Your task to perform on an android device: Search for "acer nitro" on walmart, select the first entry, and add it to the cart. Image 0: 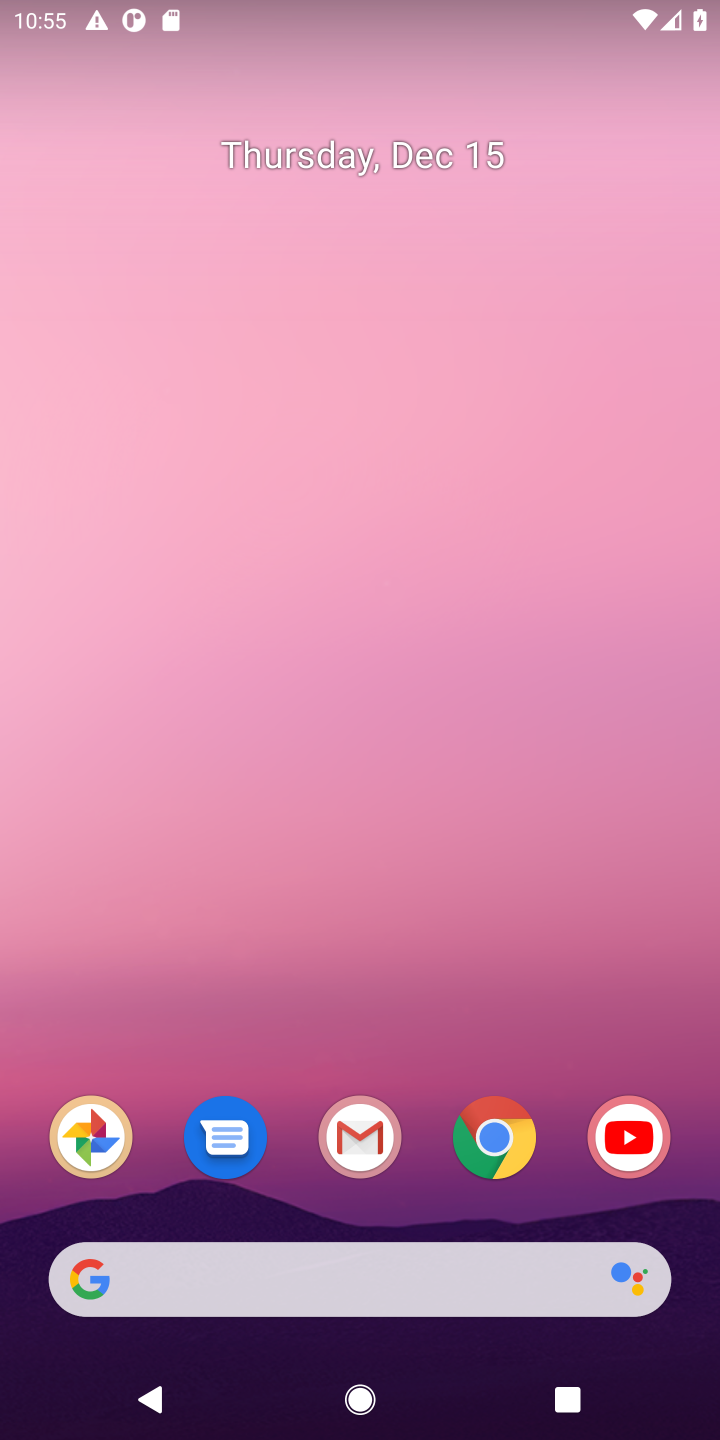
Step 0: drag from (379, 1052) to (375, 508)
Your task to perform on an android device: Search for "acer nitro" on walmart, select the first entry, and add it to the cart. Image 1: 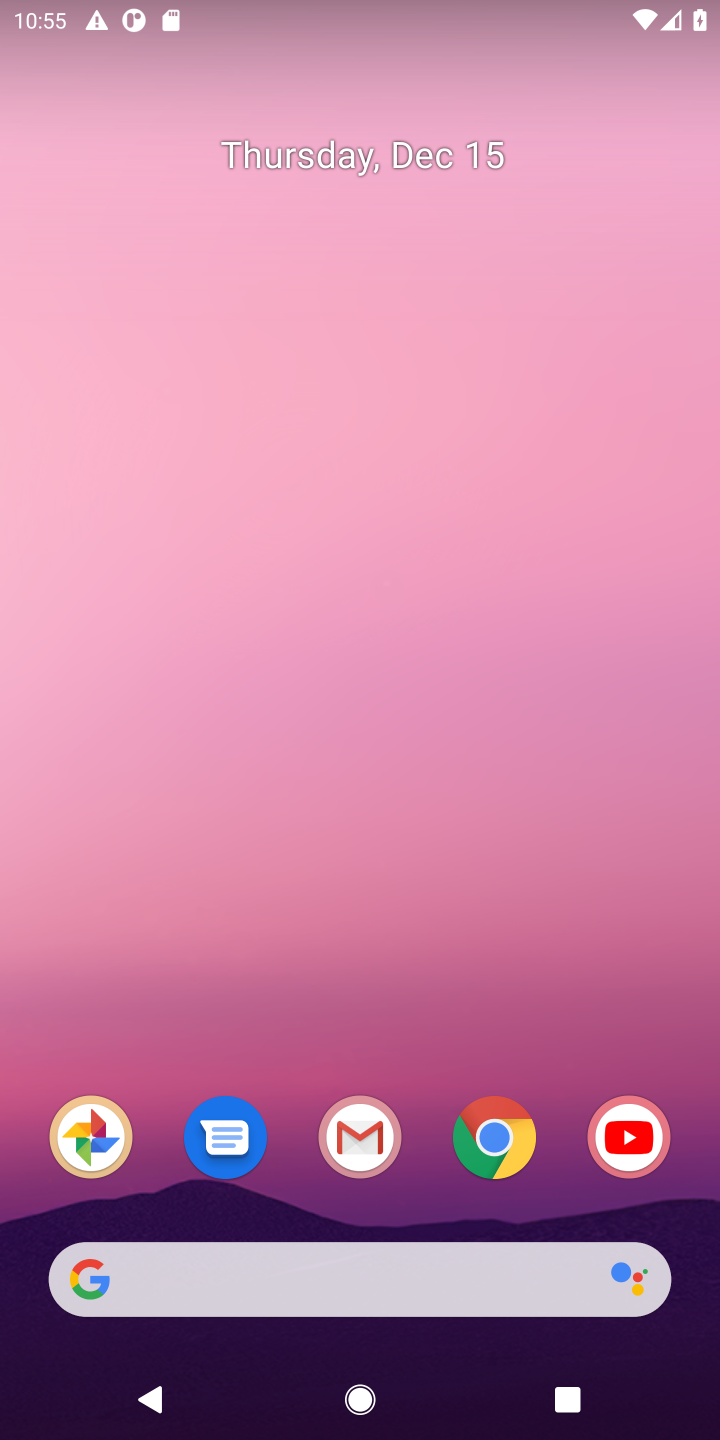
Step 1: drag from (318, 1011) to (281, 377)
Your task to perform on an android device: Search for "acer nitro" on walmart, select the first entry, and add it to the cart. Image 2: 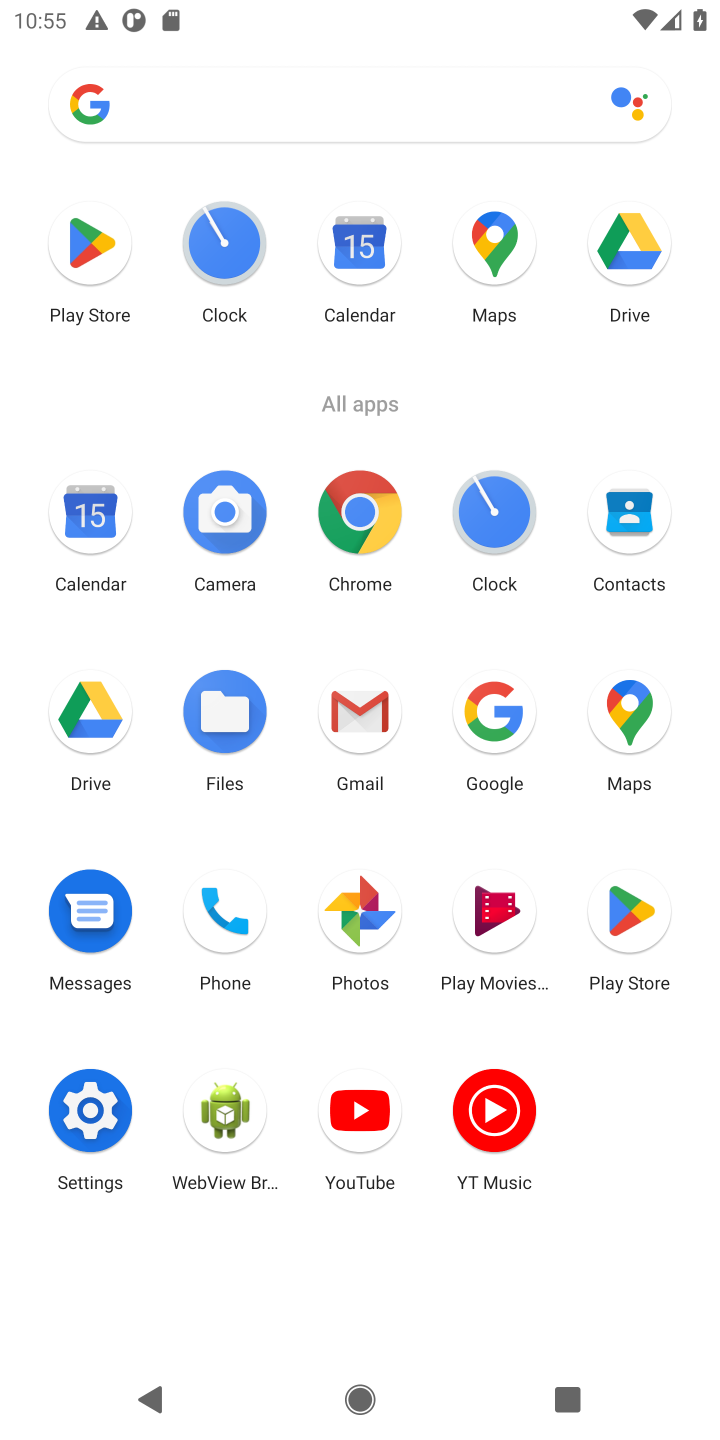
Step 2: click (505, 696)
Your task to perform on an android device: Search for "acer nitro" on walmart, select the first entry, and add it to the cart. Image 3: 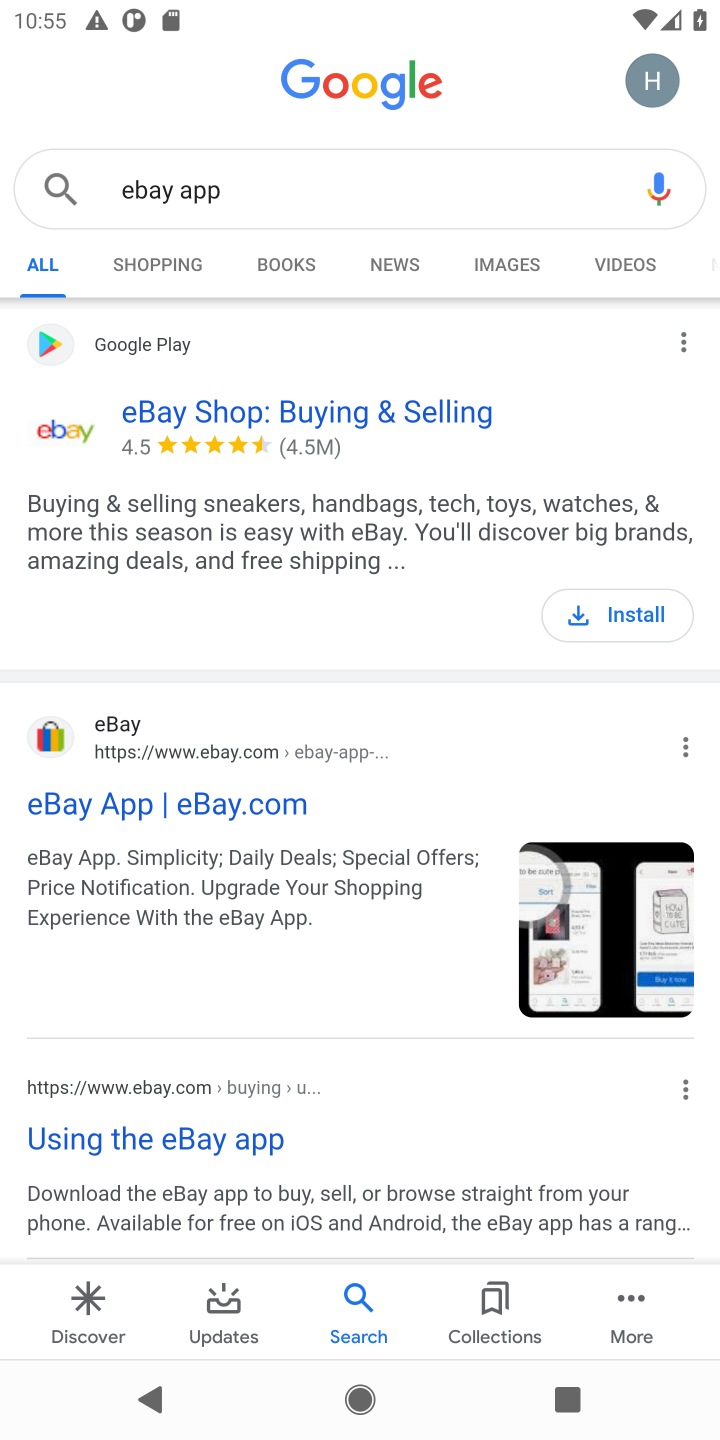
Step 3: click (146, 184)
Your task to perform on an android device: Search for "acer nitro" on walmart, select the first entry, and add it to the cart. Image 4: 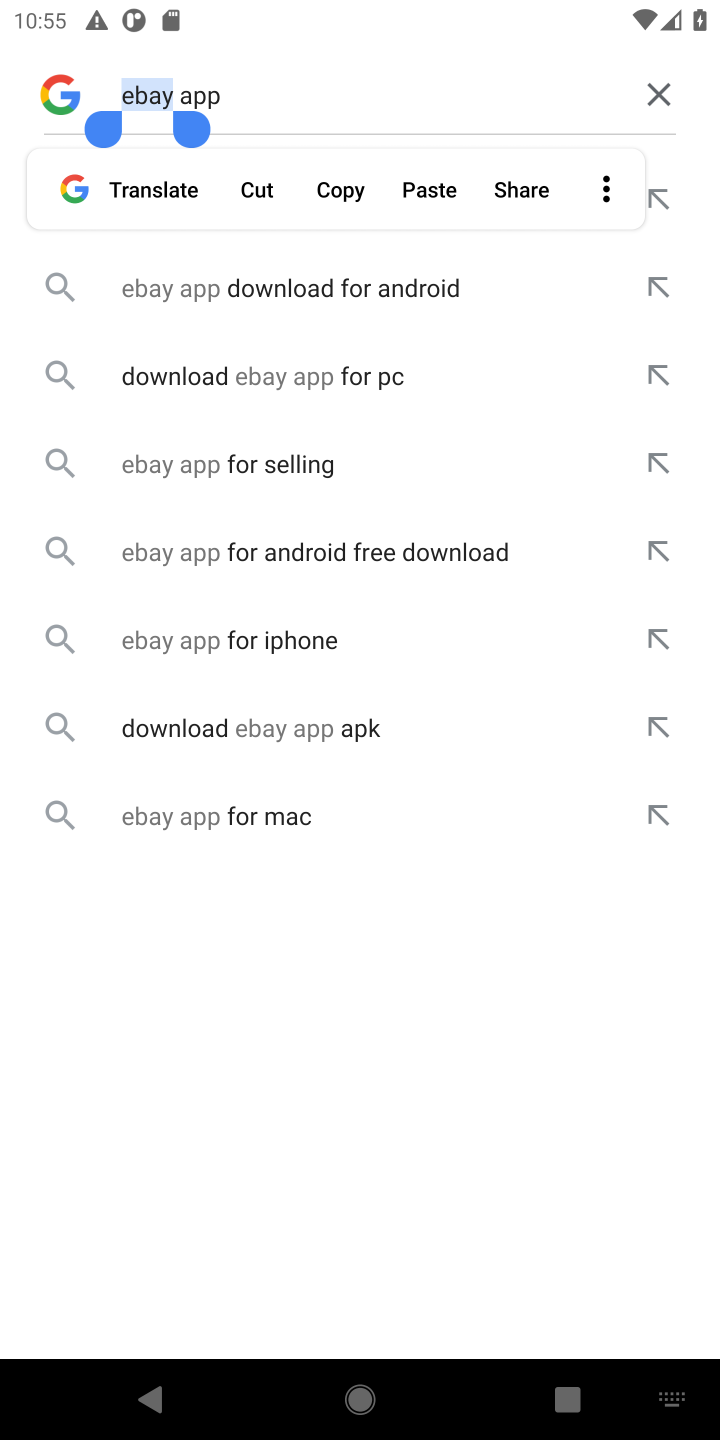
Step 4: click (657, 97)
Your task to perform on an android device: Search for "acer nitro" on walmart, select the first entry, and add it to the cart. Image 5: 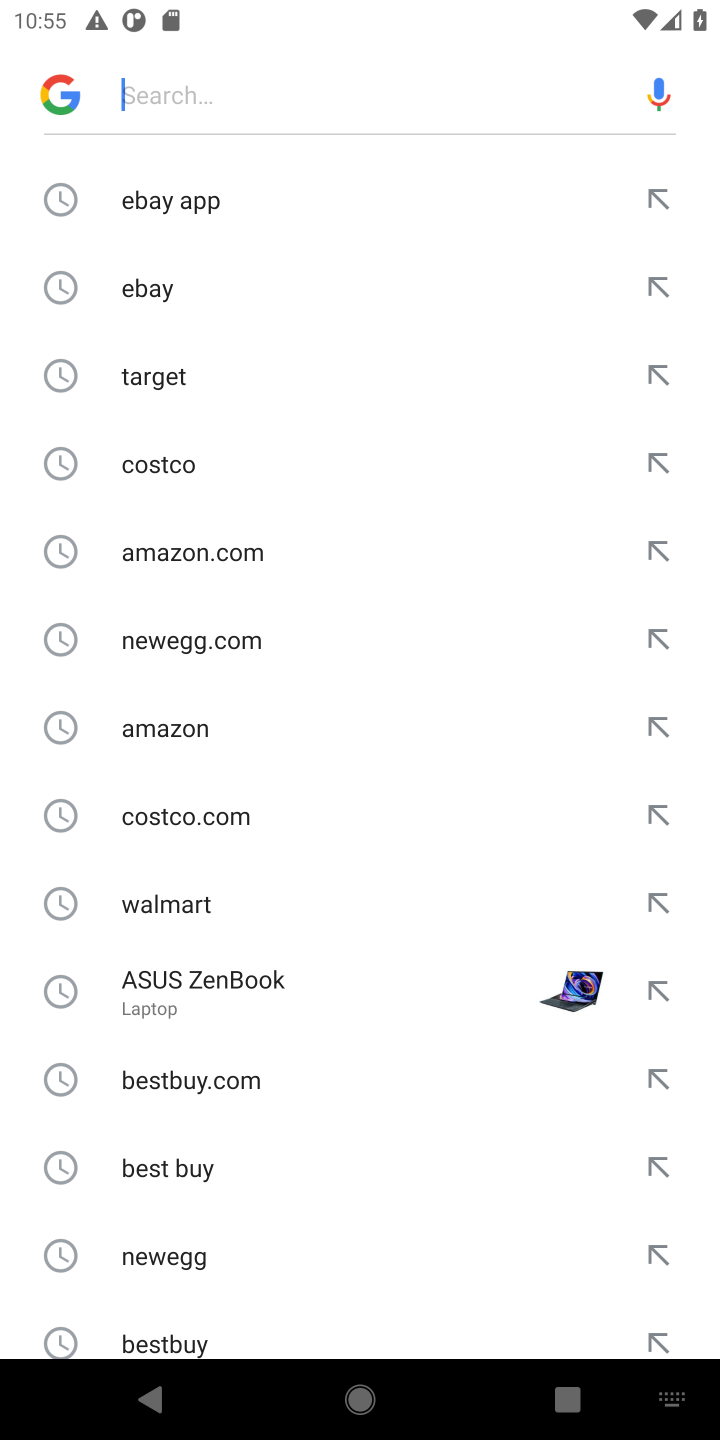
Step 5: click (179, 899)
Your task to perform on an android device: Search for "acer nitro" on walmart, select the first entry, and add it to the cart. Image 6: 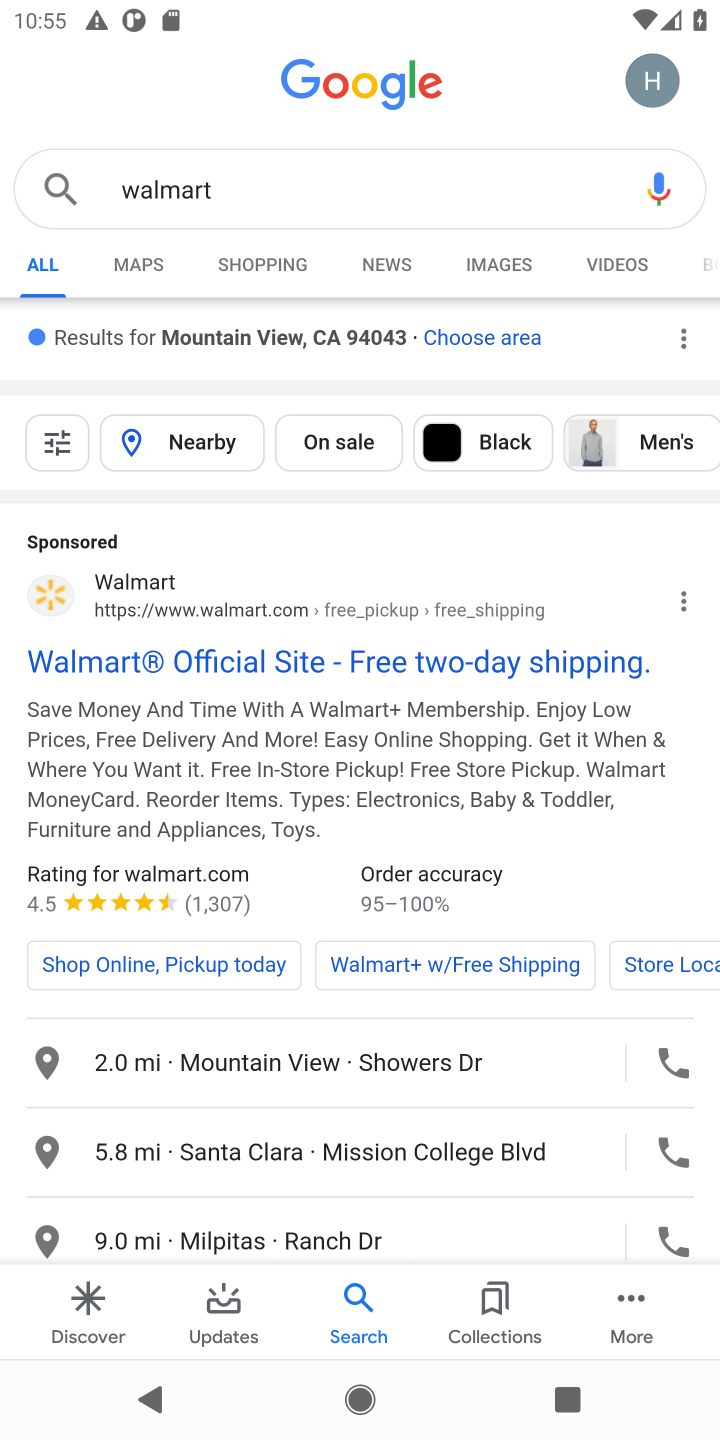
Step 6: click (131, 191)
Your task to perform on an android device: Search for "acer nitro" on walmart, select the first entry, and add it to the cart. Image 7: 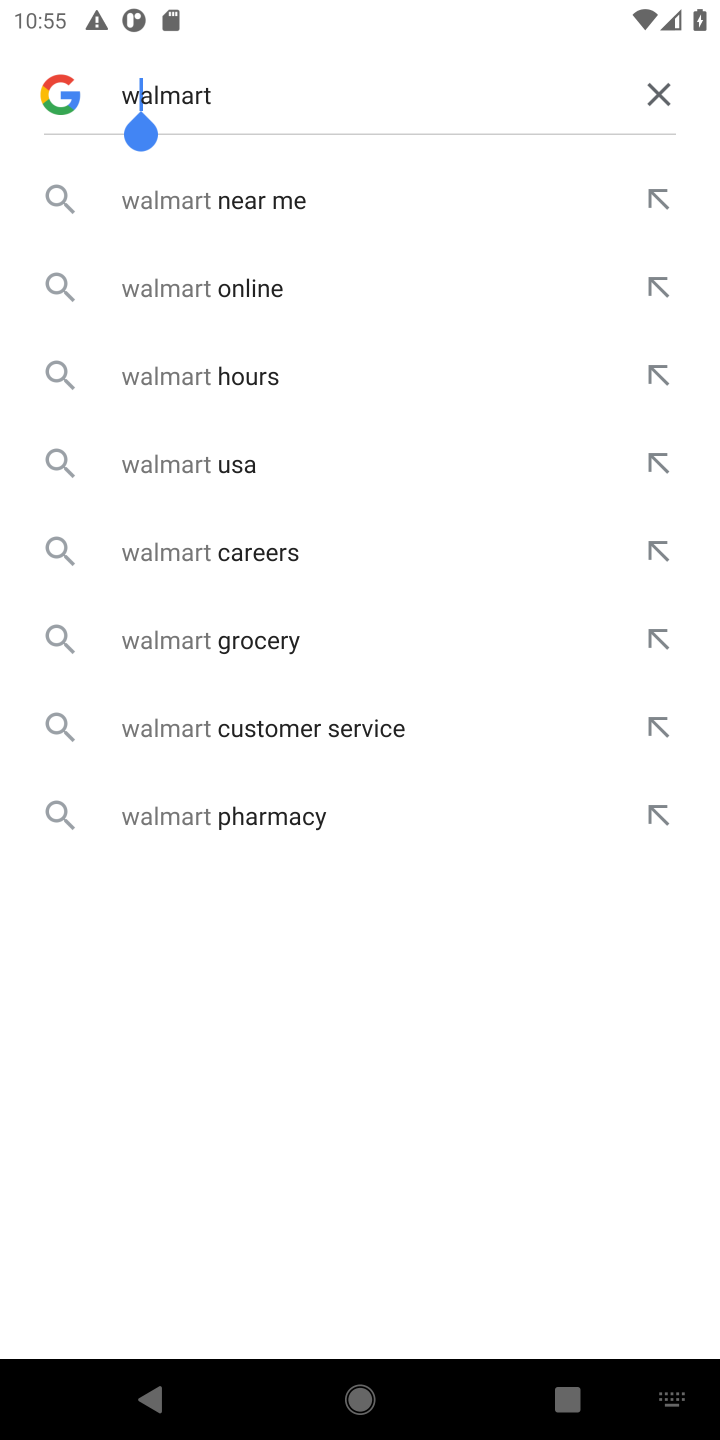
Step 7: click (663, 97)
Your task to perform on an android device: Search for "acer nitro" on walmart, select the first entry, and add it to the cart. Image 8: 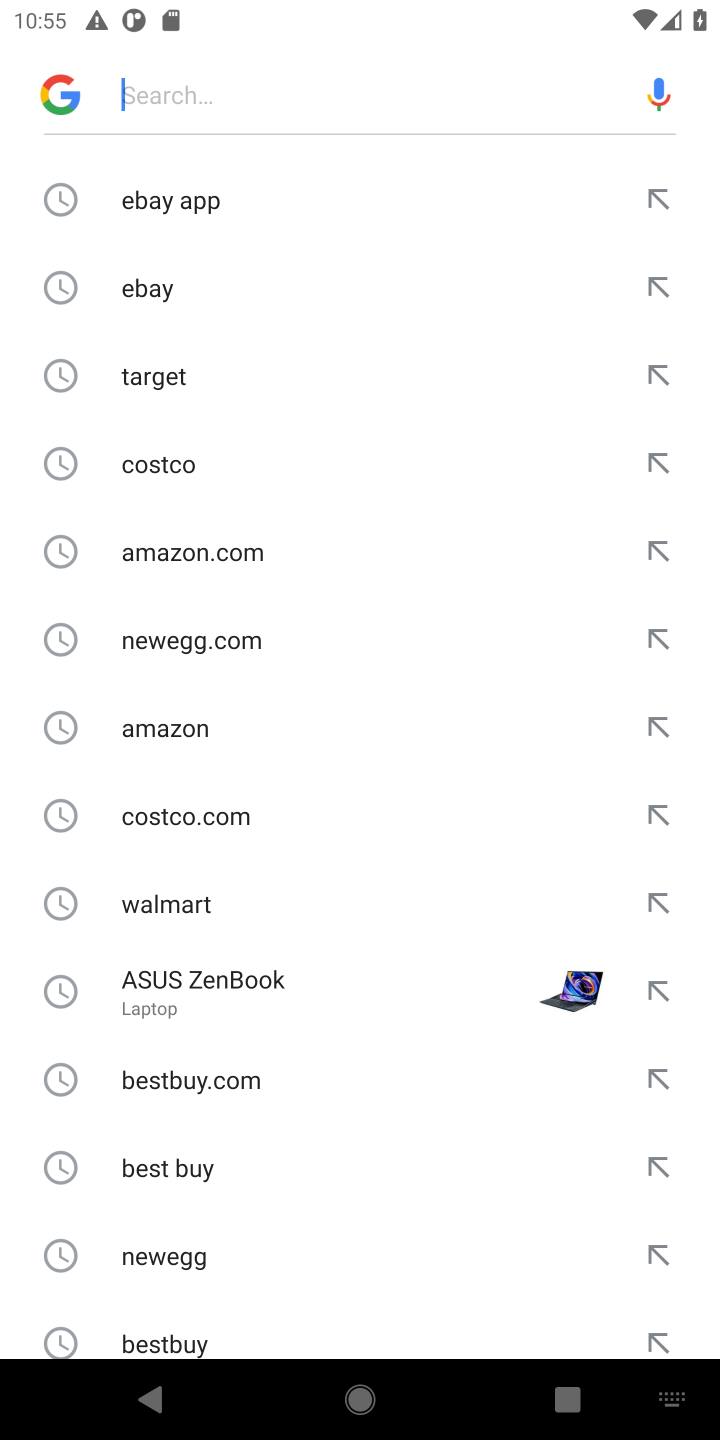
Step 8: click (193, 892)
Your task to perform on an android device: Search for "acer nitro" on walmart, select the first entry, and add it to the cart. Image 9: 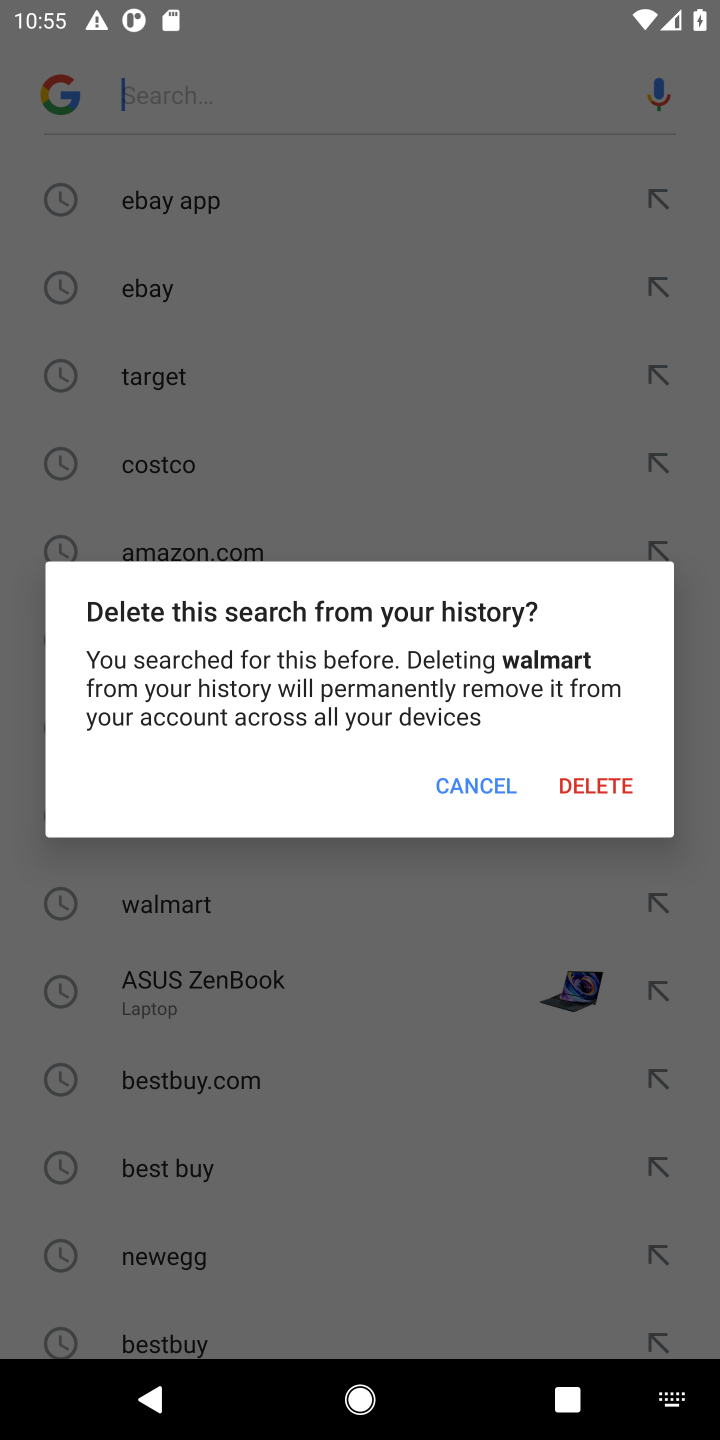
Step 9: click (459, 790)
Your task to perform on an android device: Search for "acer nitro" on walmart, select the first entry, and add it to the cart. Image 10: 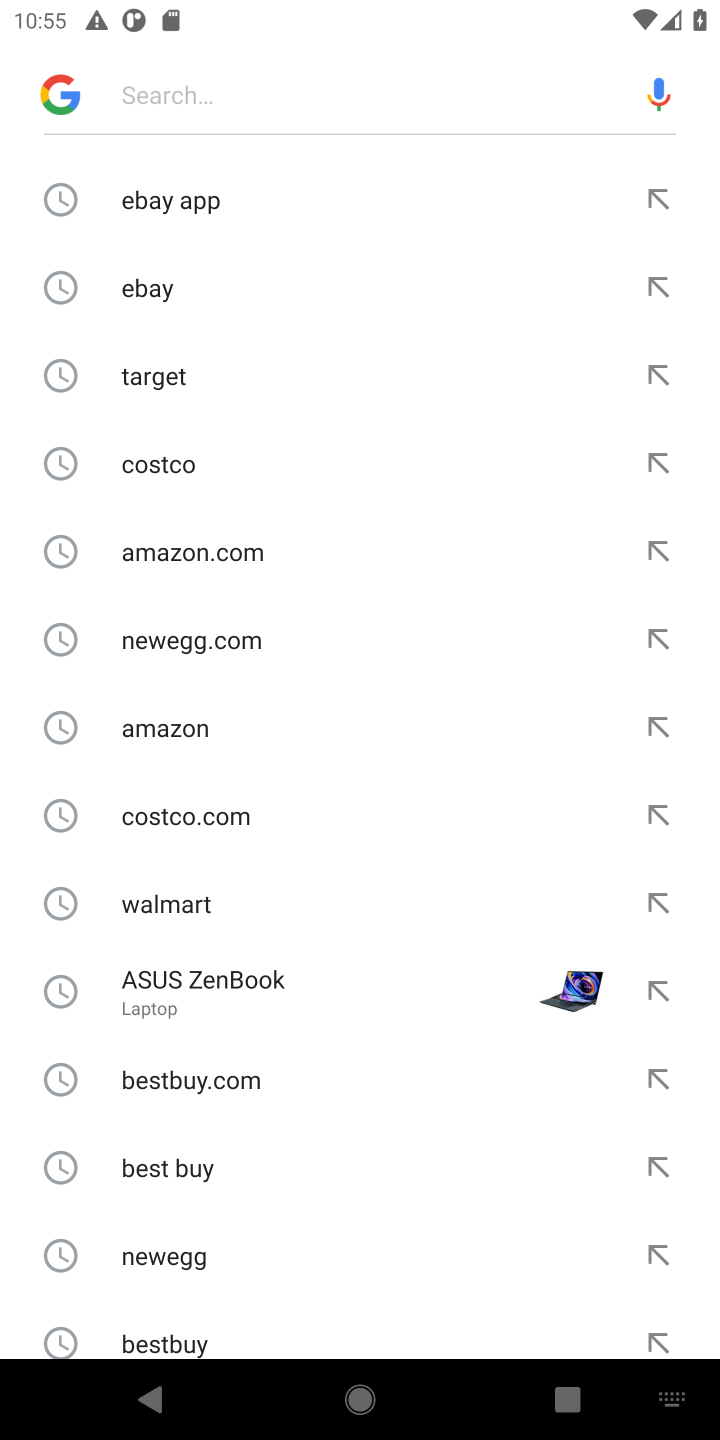
Step 10: click (154, 901)
Your task to perform on an android device: Search for "acer nitro" on walmart, select the first entry, and add it to the cart. Image 11: 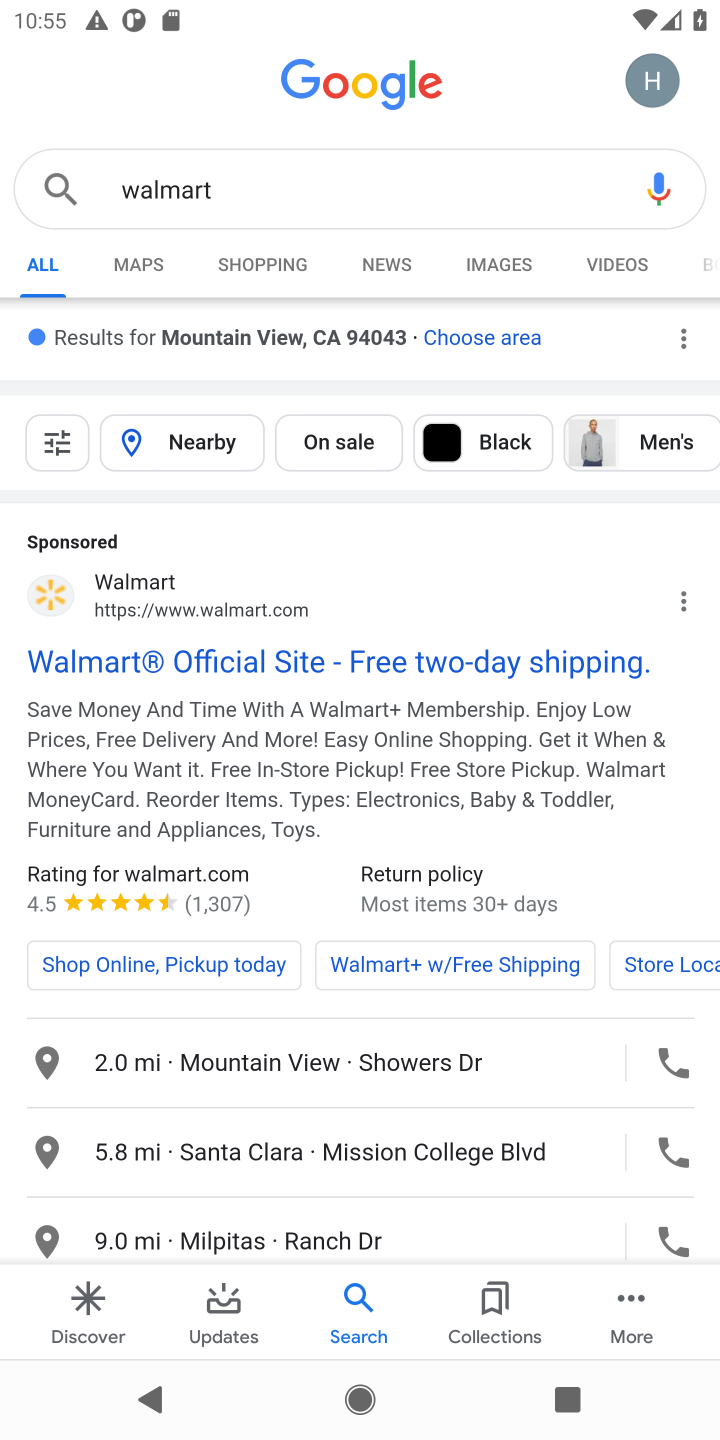
Step 11: click (178, 659)
Your task to perform on an android device: Search for "acer nitro" on walmart, select the first entry, and add it to the cart. Image 12: 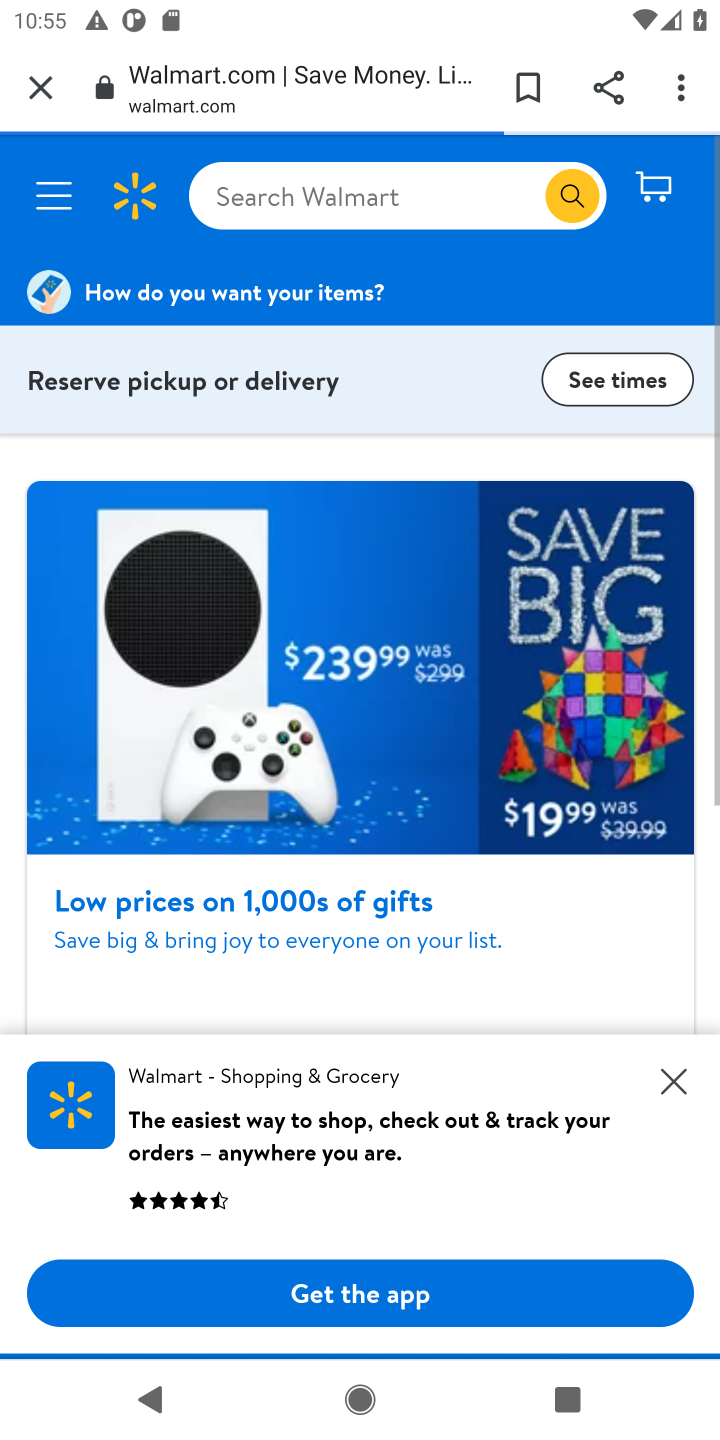
Step 12: click (259, 196)
Your task to perform on an android device: Search for "acer nitro" on walmart, select the first entry, and add it to the cart. Image 13: 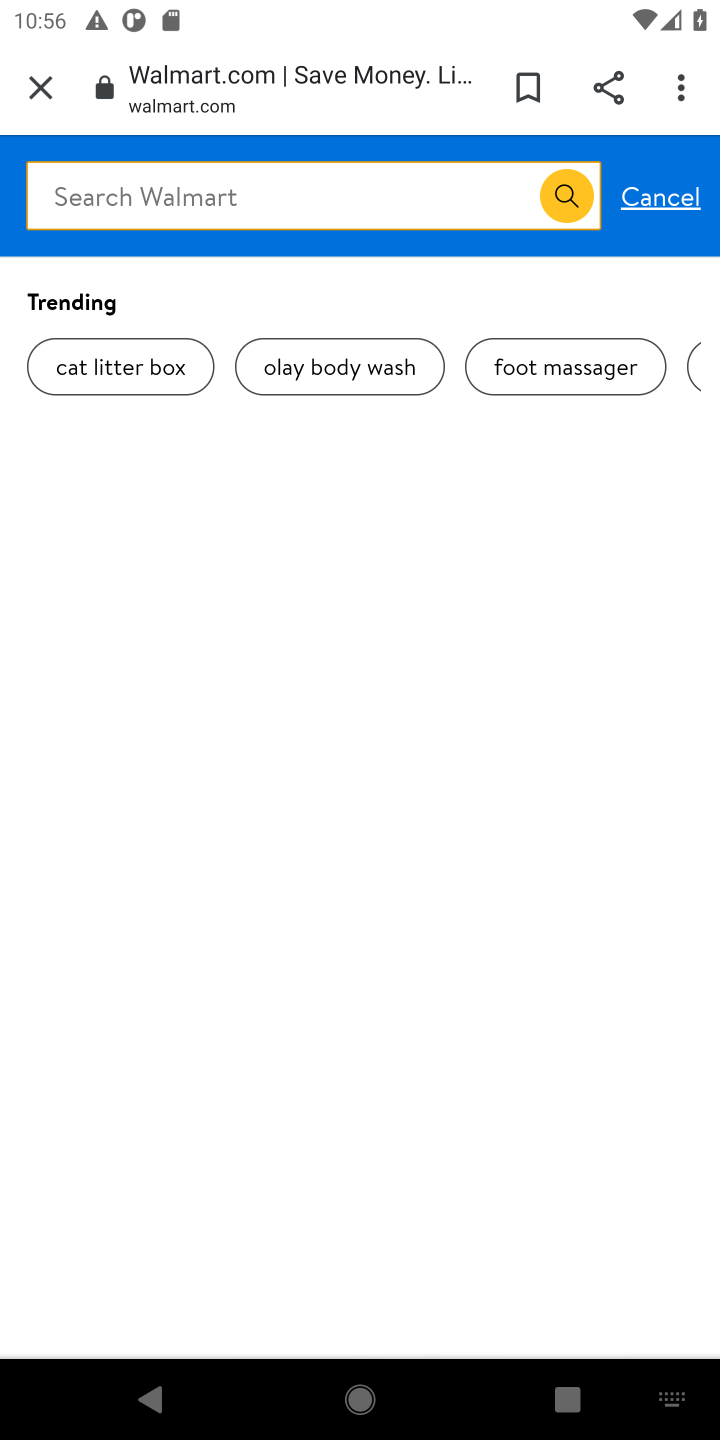
Step 13: type "acer nitro"
Your task to perform on an android device: Search for "acer nitro" on walmart, select the first entry, and add it to the cart. Image 14: 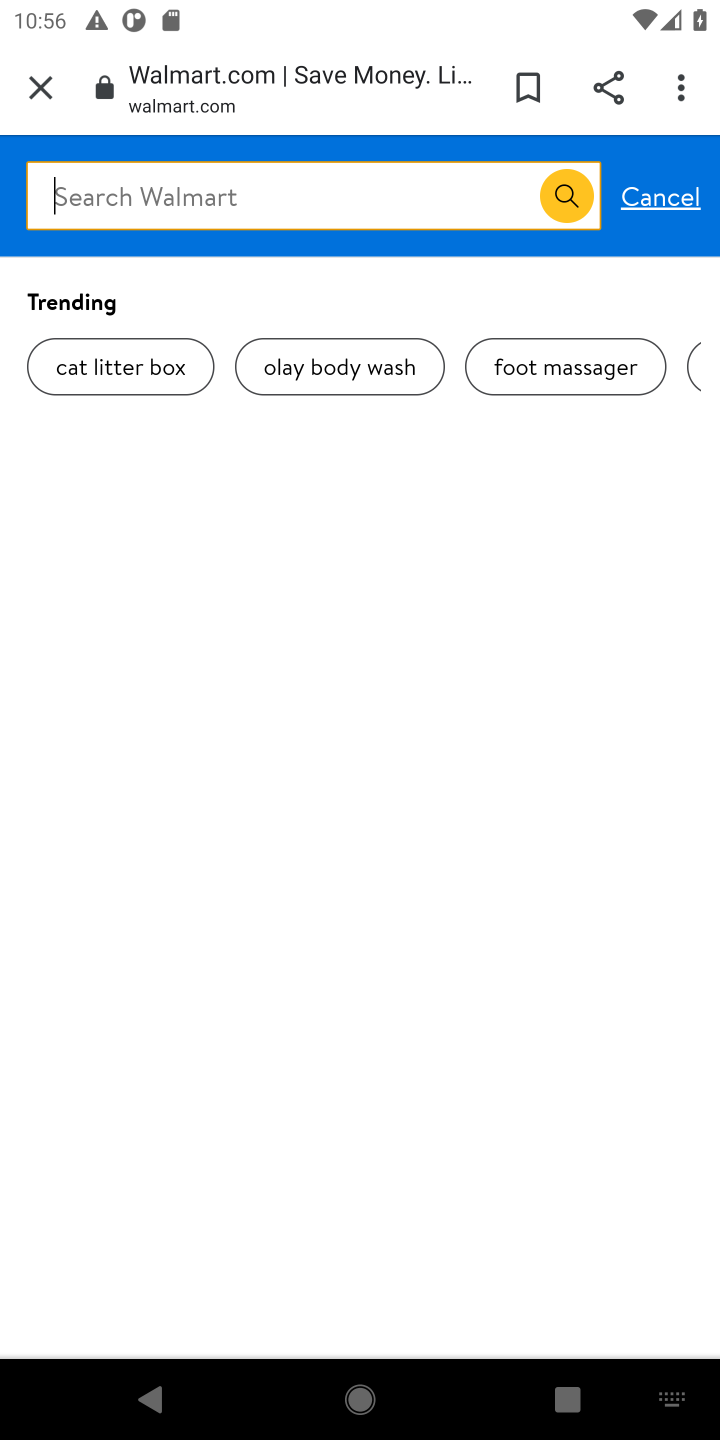
Step 14: click (564, 190)
Your task to perform on an android device: Search for "acer nitro" on walmart, select the first entry, and add it to the cart. Image 15: 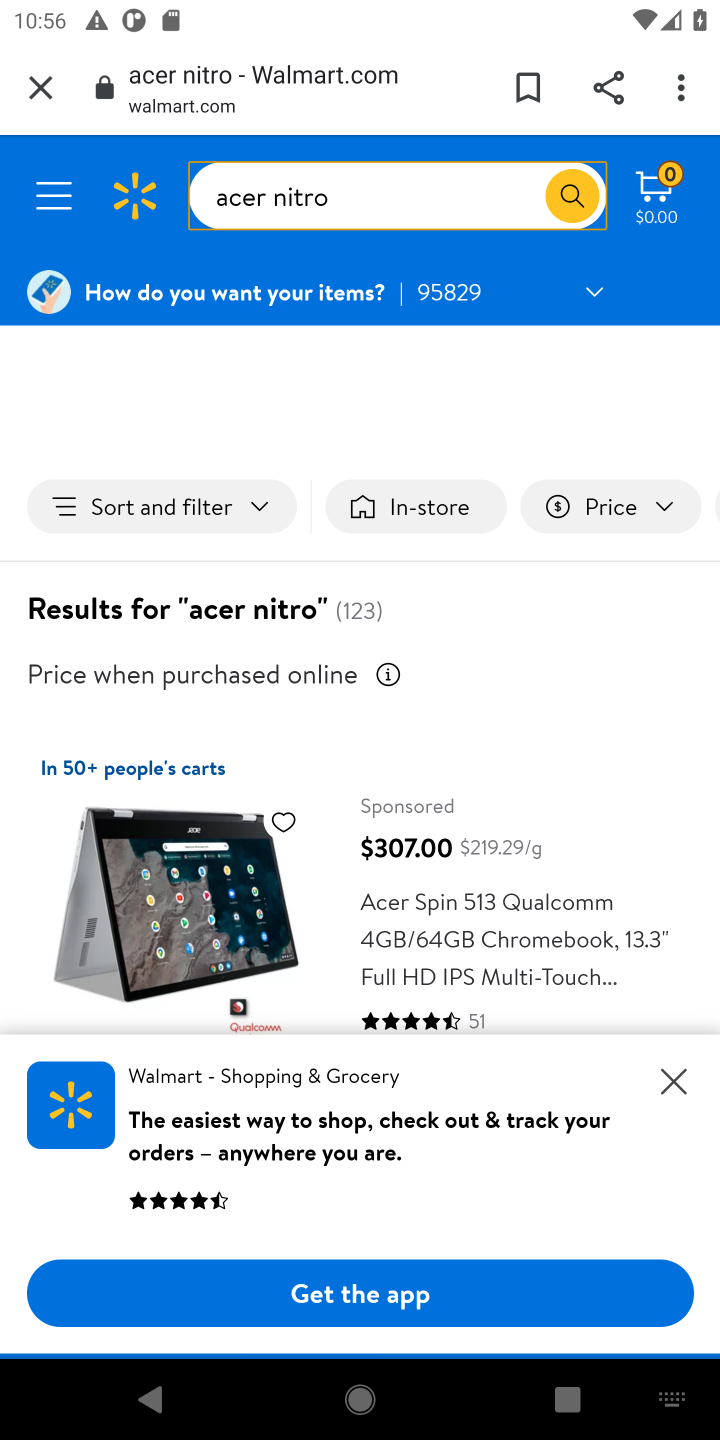
Step 15: drag from (497, 854) to (448, 389)
Your task to perform on an android device: Search for "acer nitro" on walmart, select the first entry, and add it to the cart. Image 16: 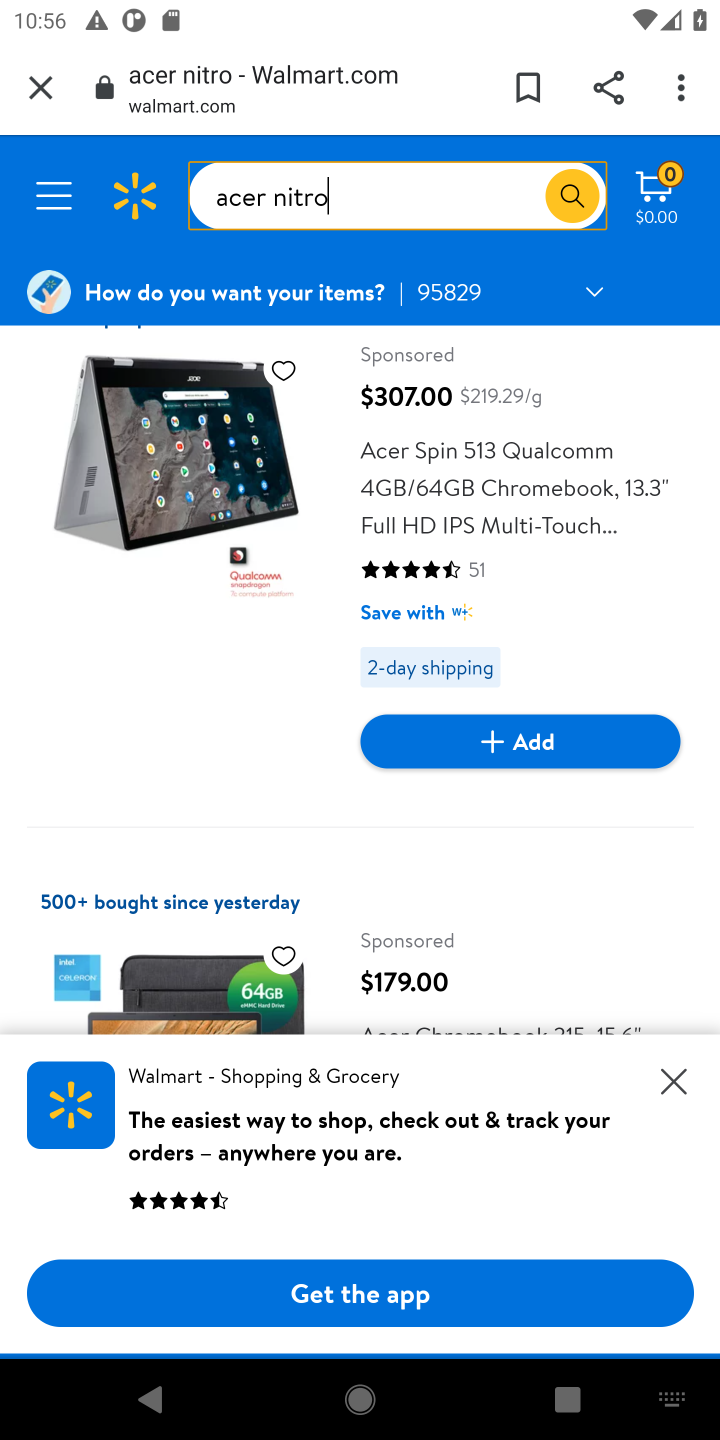
Step 16: click (676, 1085)
Your task to perform on an android device: Search for "acer nitro" on walmart, select the first entry, and add it to the cart. Image 17: 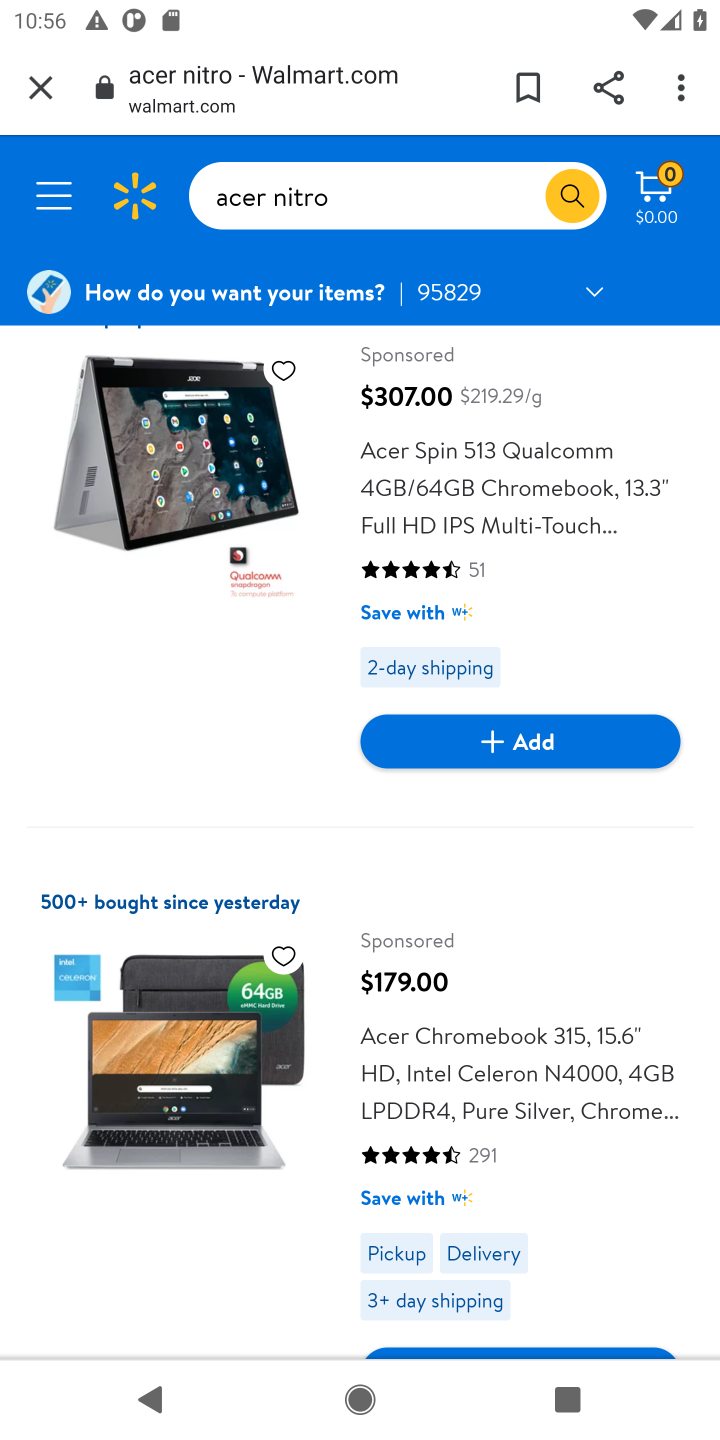
Step 17: click (523, 745)
Your task to perform on an android device: Search for "acer nitro" on walmart, select the first entry, and add it to the cart. Image 18: 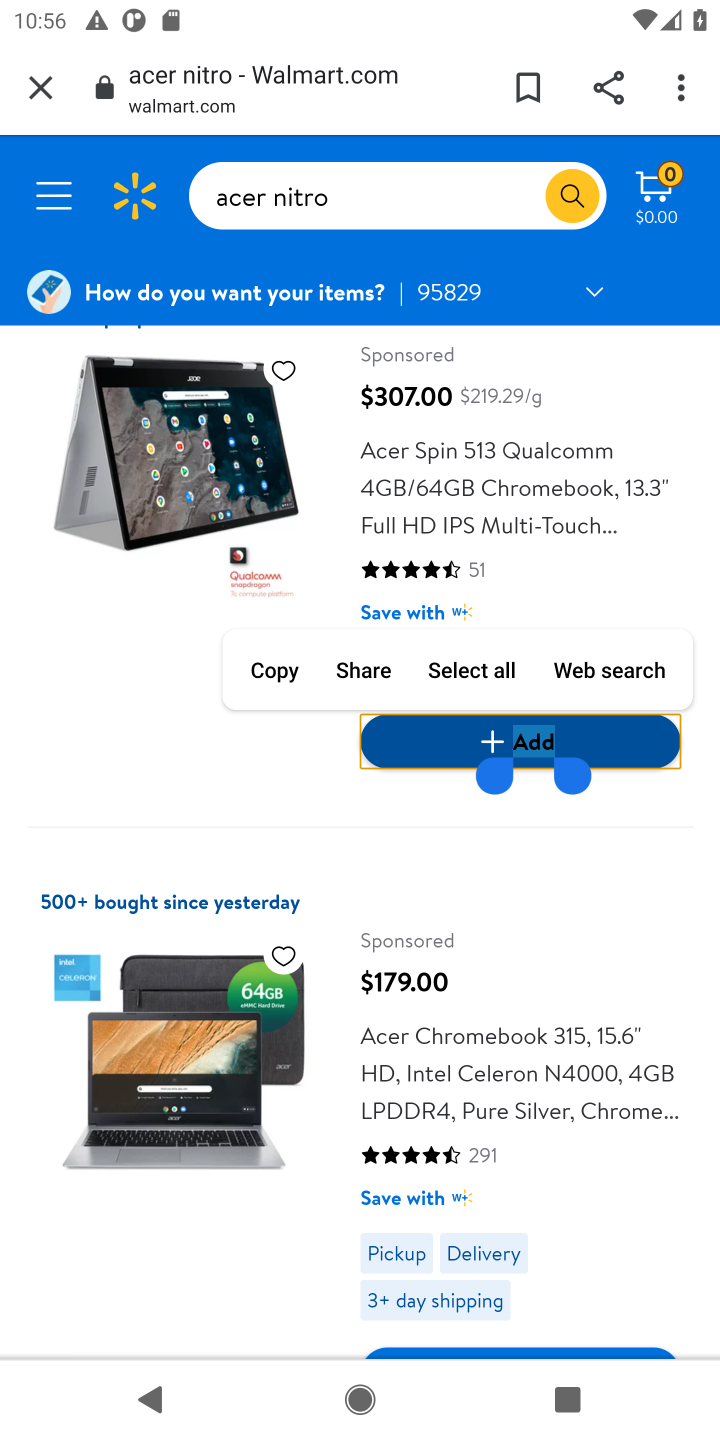
Step 18: click (513, 745)
Your task to perform on an android device: Search for "acer nitro" on walmart, select the first entry, and add it to the cart. Image 19: 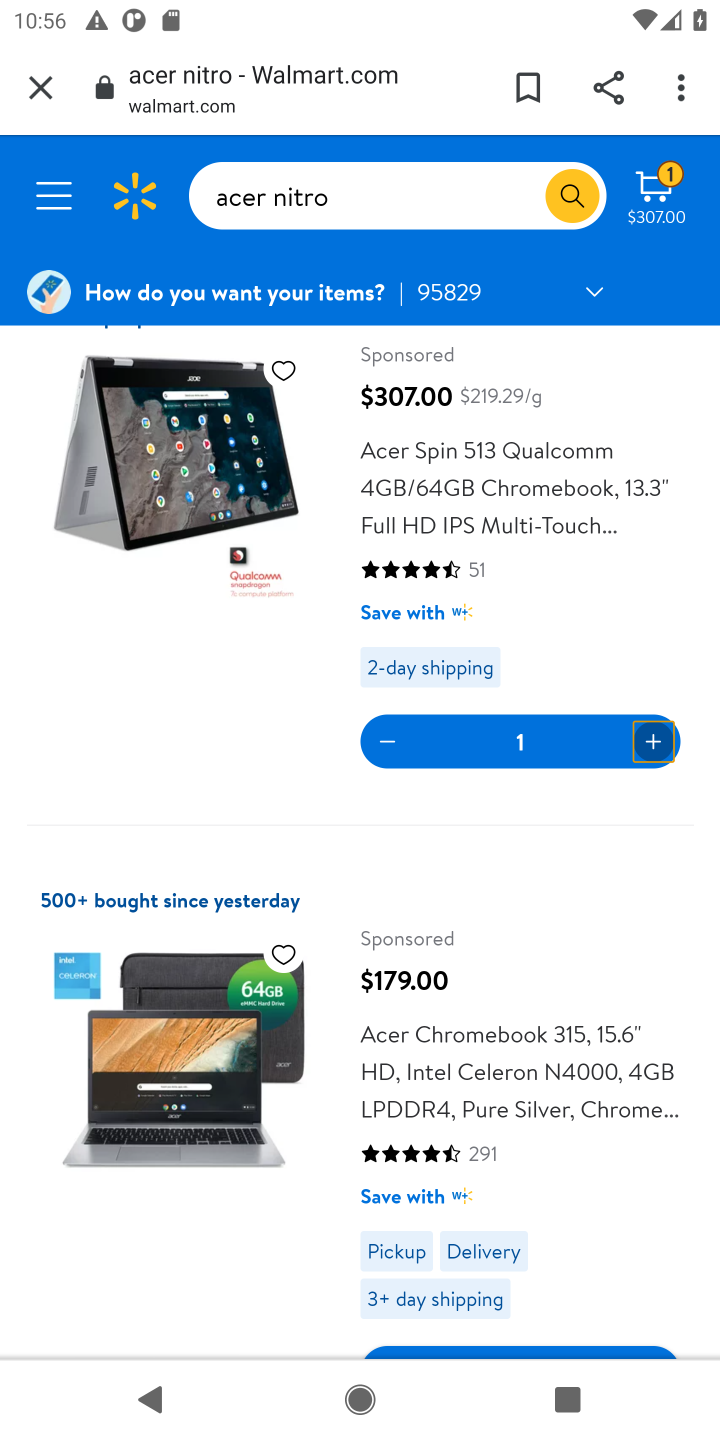
Step 19: task complete